Your task to perform on an android device: turn on airplane mode Image 0: 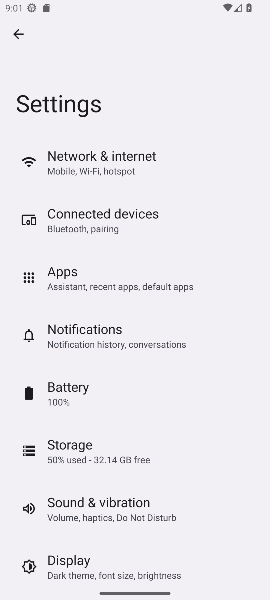
Step 0: click (92, 162)
Your task to perform on an android device: turn on airplane mode Image 1: 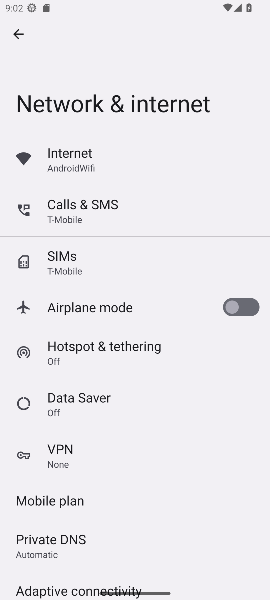
Step 1: click (246, 305)
Your task to perform on an android device: turn on airplane mode Image 2: 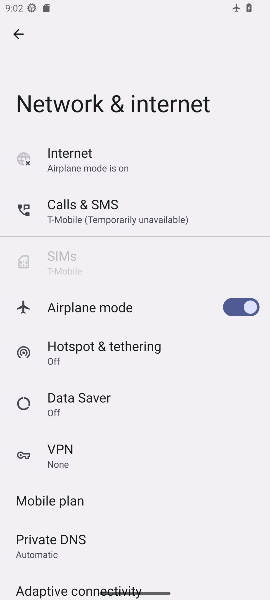
Step 2: task complete